Your task to perform on an android device: delete location history Image 0: 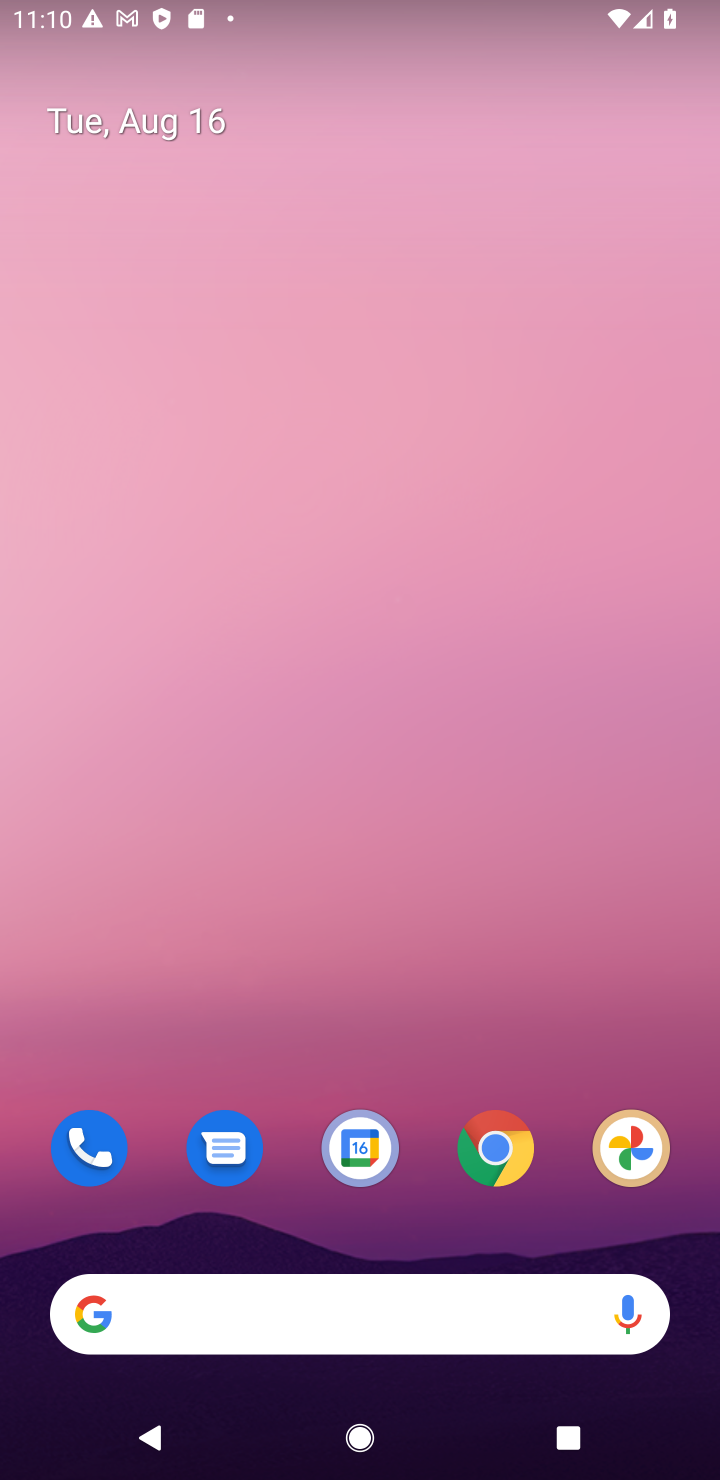
Step 0: drag from (389, 1220) to (407, 25)
Your task to perform on an android device: delete location history Image 1: 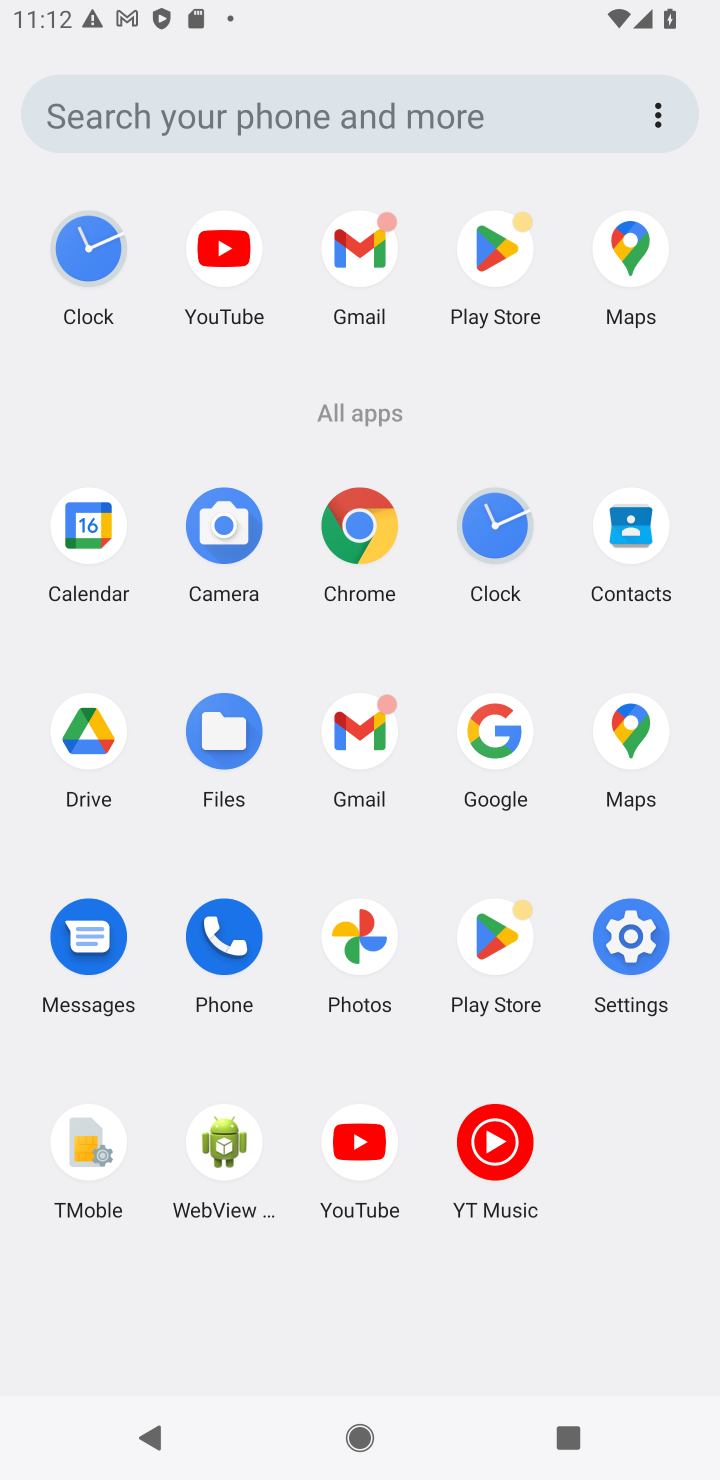
Step 1: click (650, 741)
Your task to perform on an android device: delete location history Image 2: 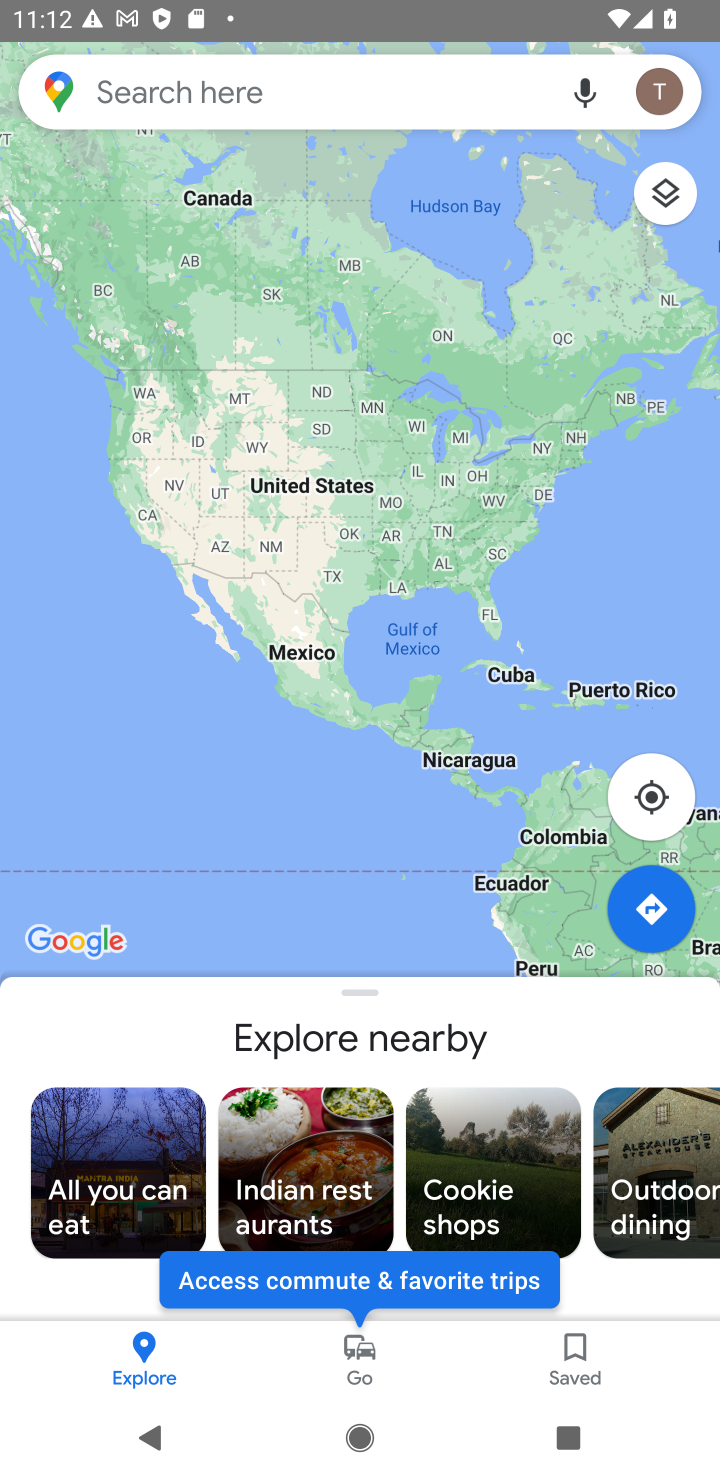
Step 2: click (664, 80)
Your task to perform on an android device: delete location history Image 3: 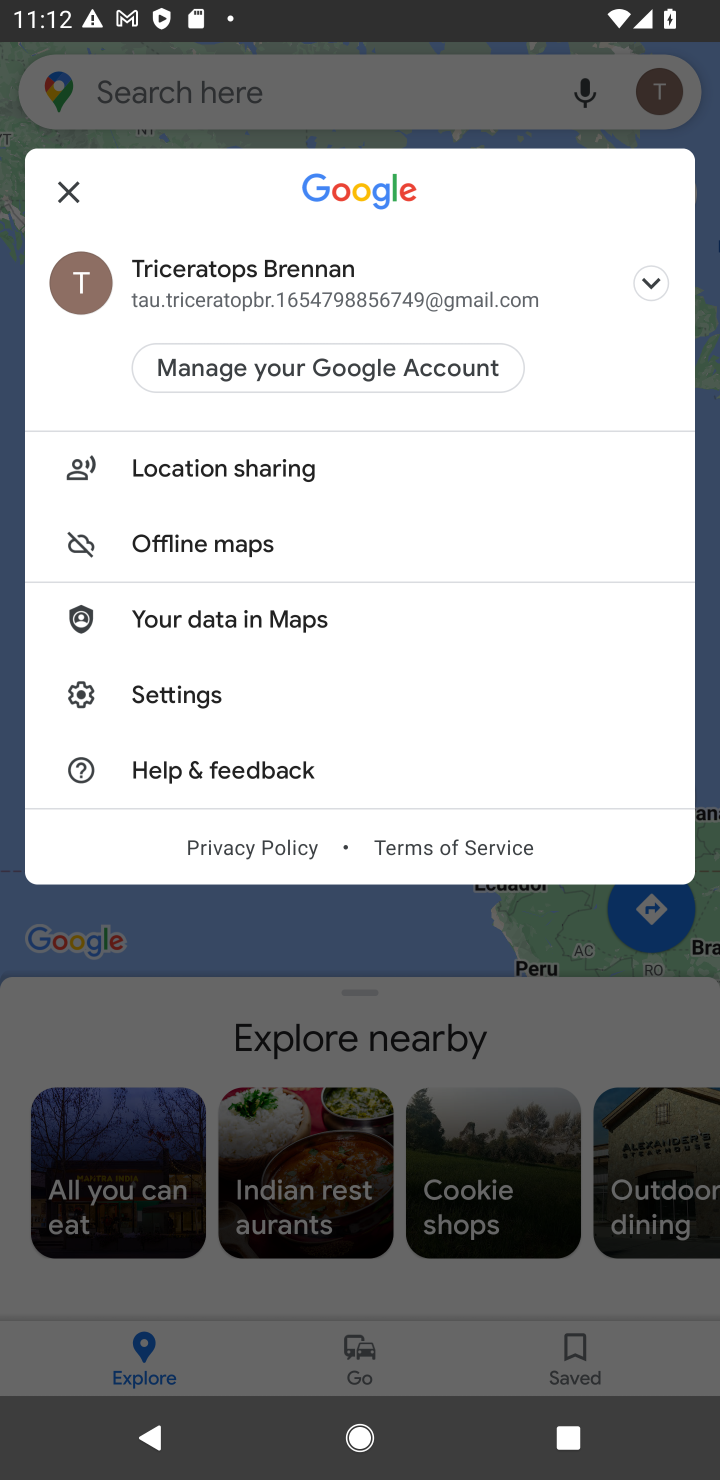
Step 3: click (270, 625)
Your task to perform on an android device: delete location history Image 4: 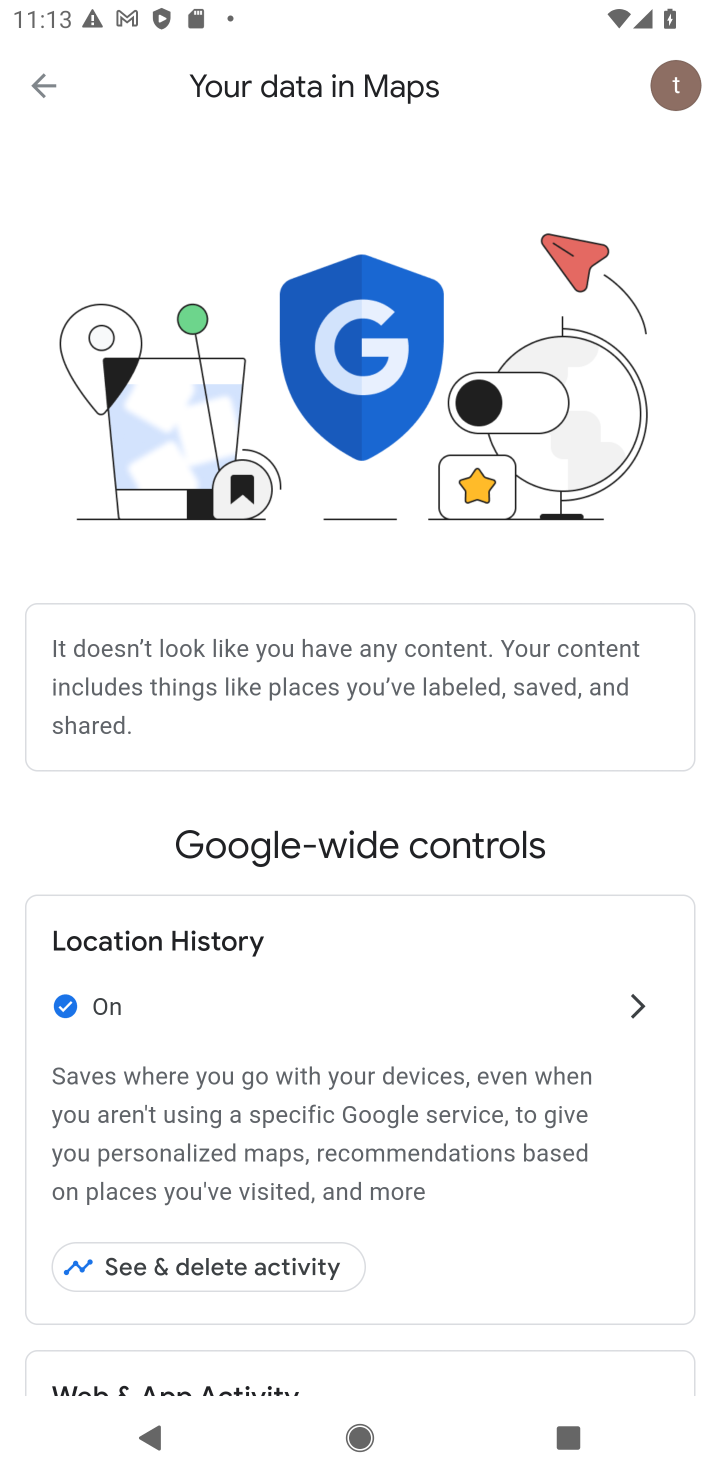
Step 4: click (171, 935)
Your task to perform on an android device: delete location history Image 5: 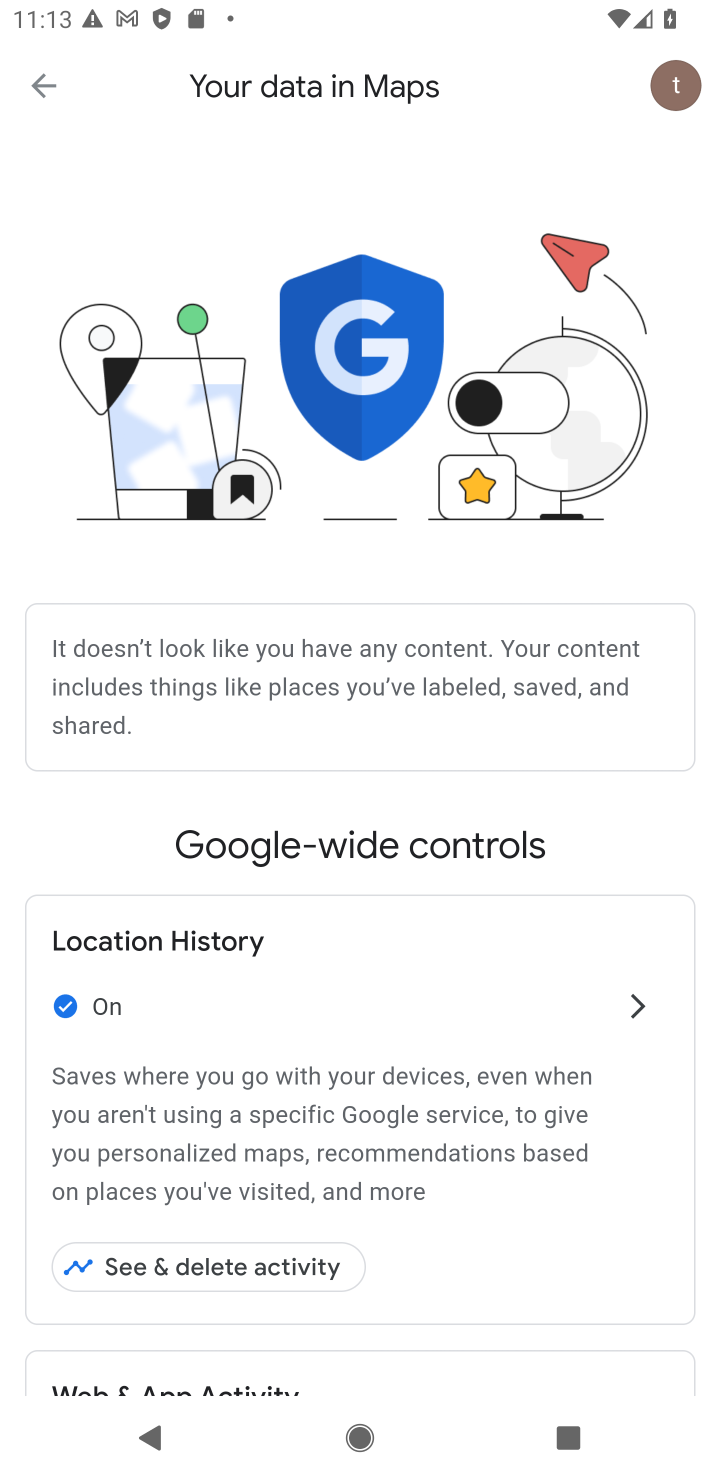
Step 5: click (155, 1038)
Your task to perform on an android device: delete location history Image 6: 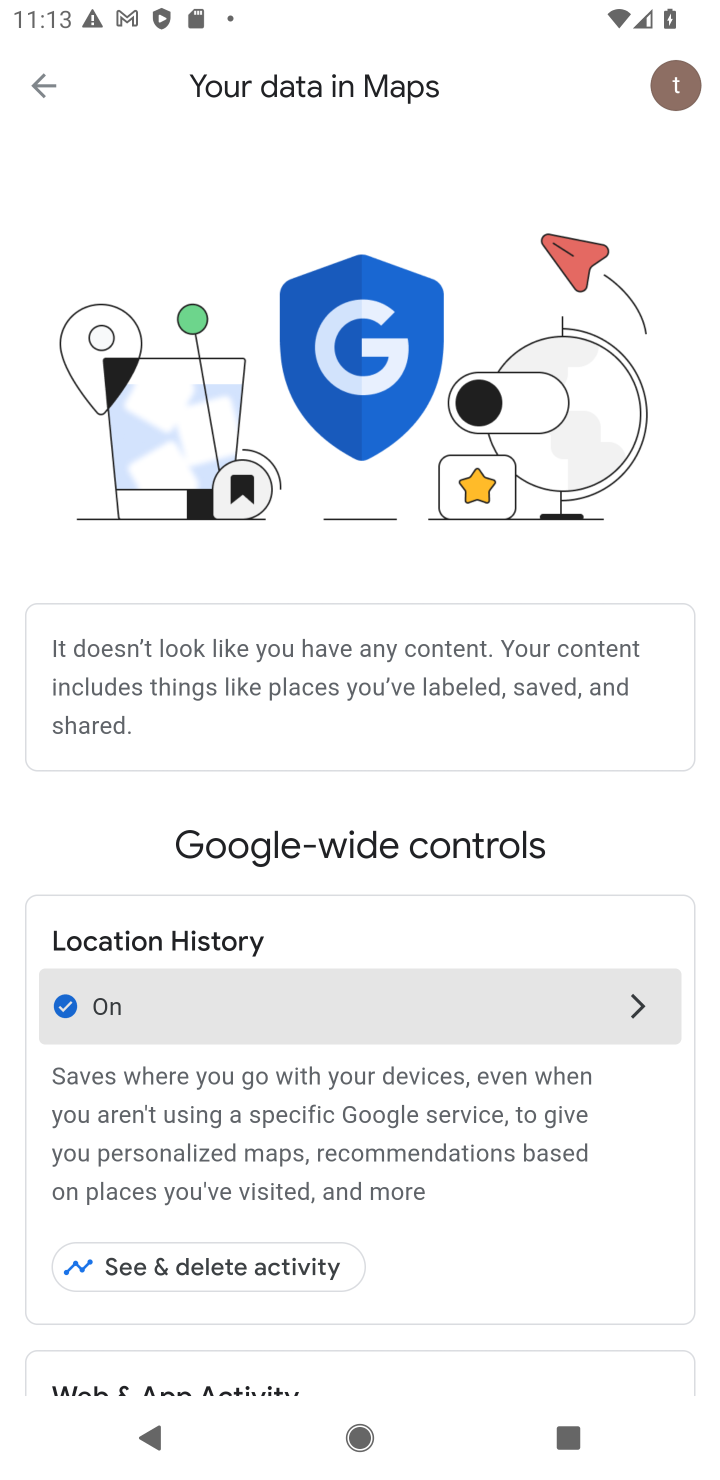
Step 6: drag from (254, 900) to (340, 357)
Your task to perform on an android device: delete location history Image 7: 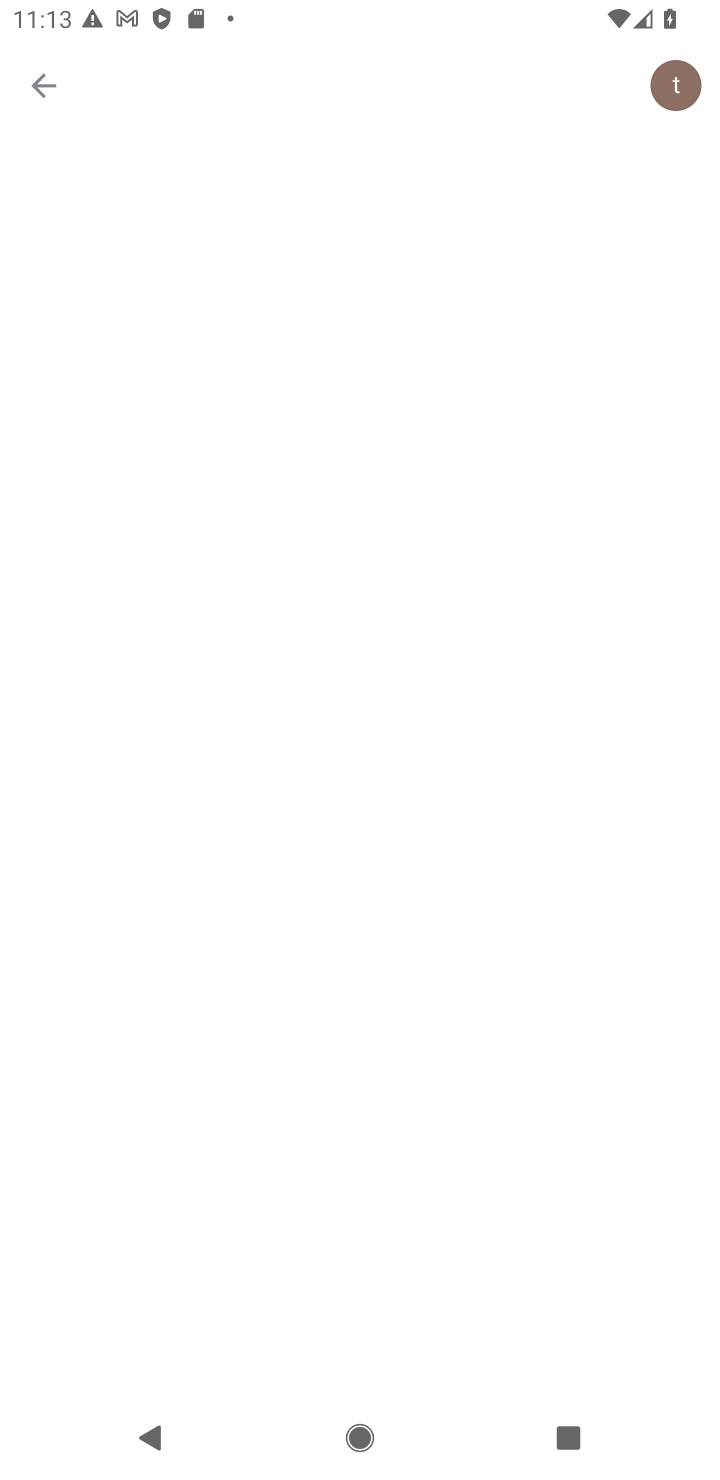
Step 7: click (30, 94)
Your task to perform on an android device: delete location history Image 8: 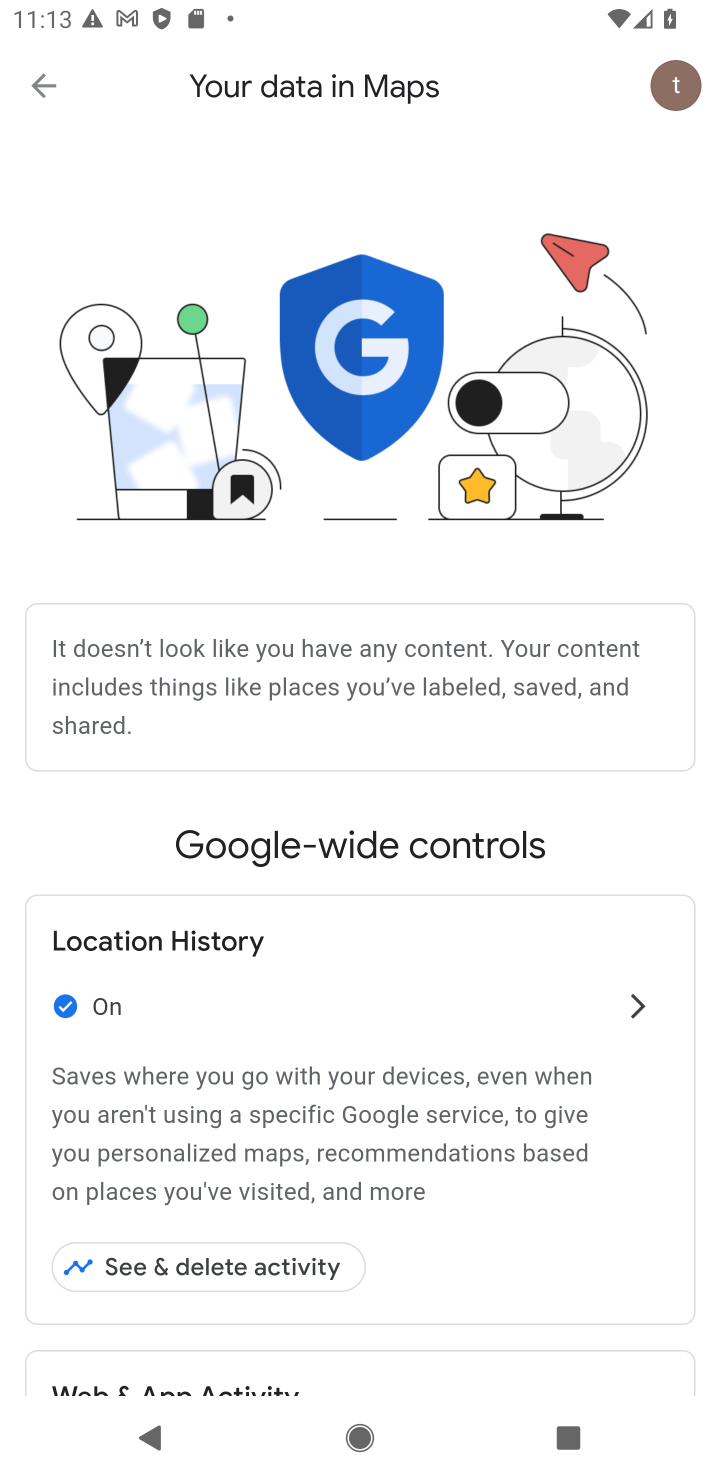
Step 8: click (27, 74)
Your task to perform on an android device: delete location history Image 9: 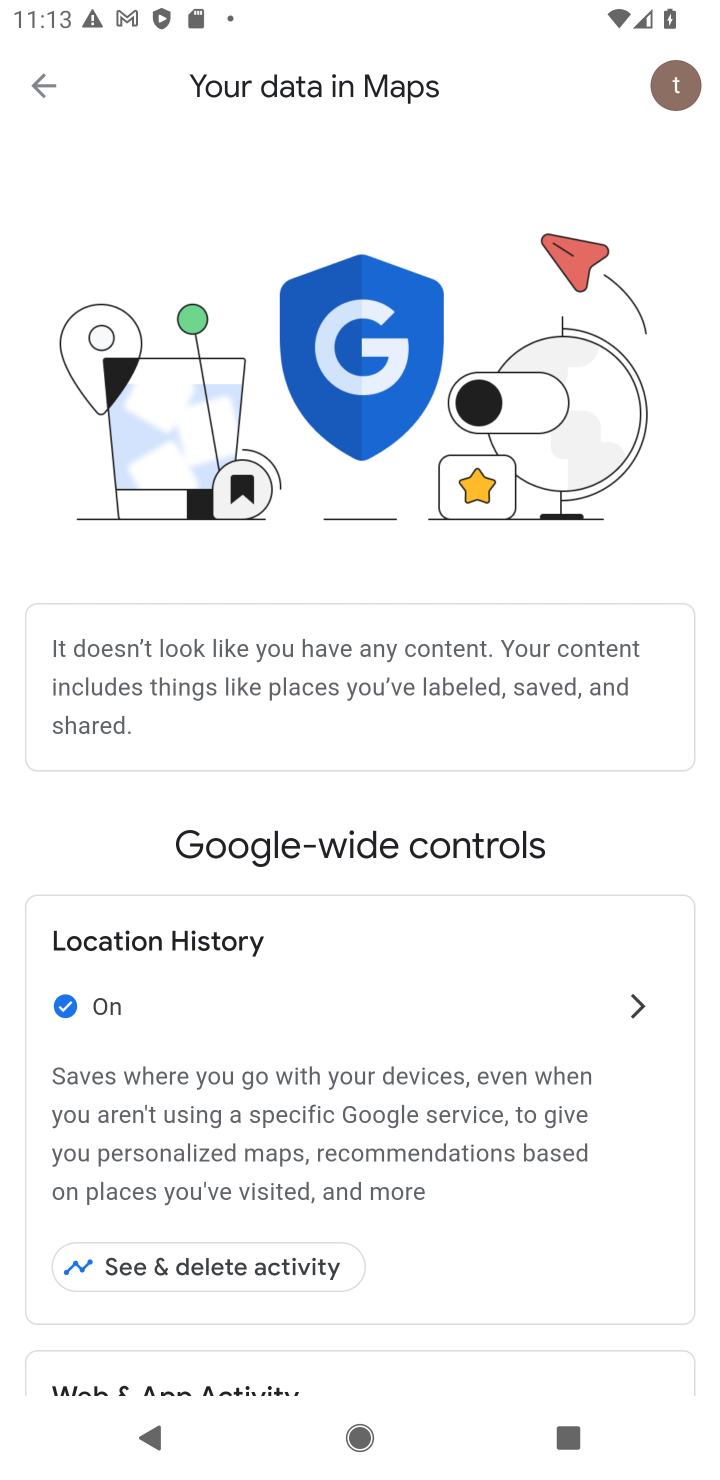
Step 9: task complete